Your task to perform on an android device: Open the map Image 0: 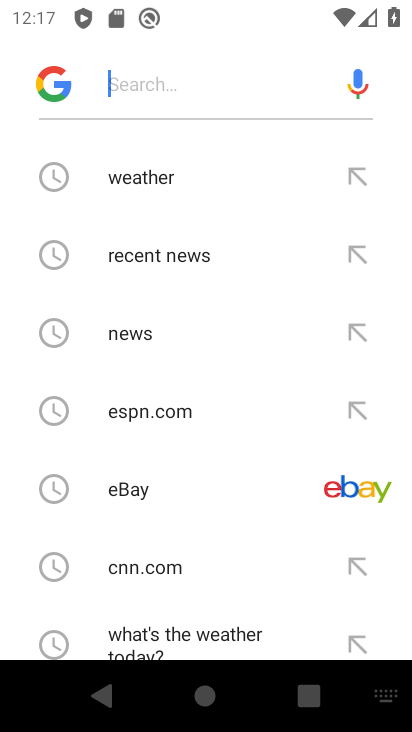
Step 0: press home button
Your task to perform on an android device: Open the map Image 1: 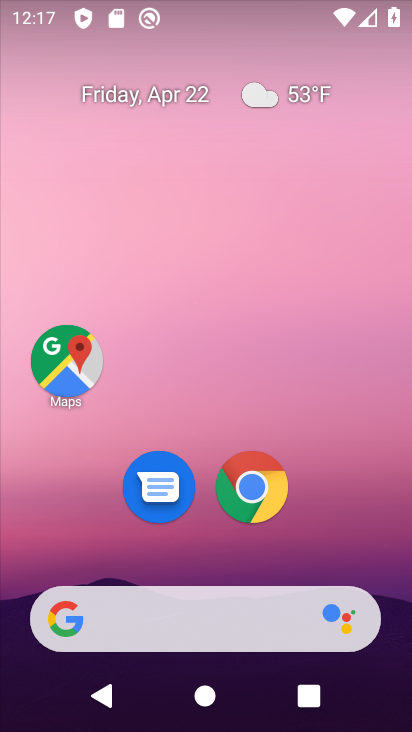
Step 1: click (84, 352)
Your task to perform on an android device: Open the map Image 2: 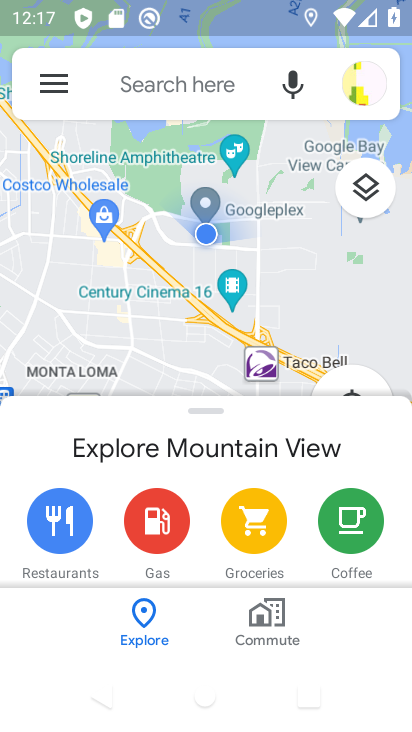
Step 2: task complete